Your task to perform on an android device: set the timer Image 0: 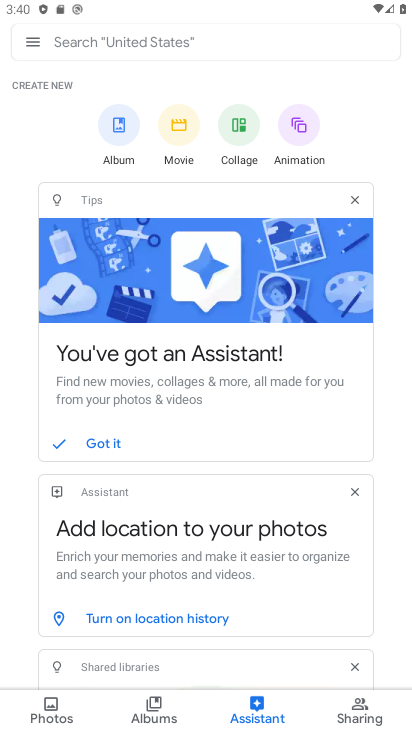
Step 0: press home button
Your task to perform on an android device: set the timer Image 1: 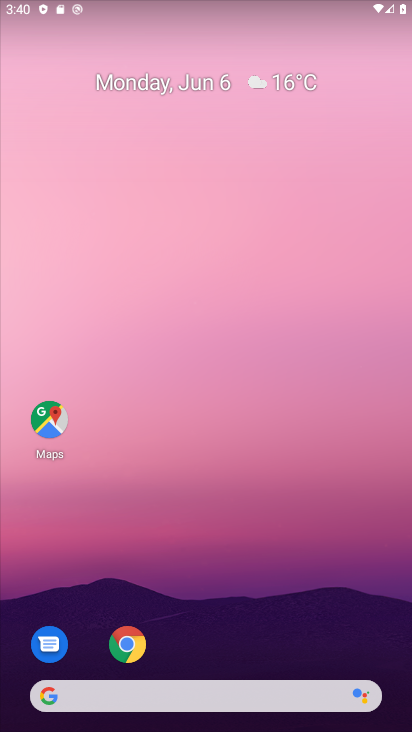
Step 1: drag from (140, 728) to (76, 17)
Your task to perform on an android device: set the timer Image 2: 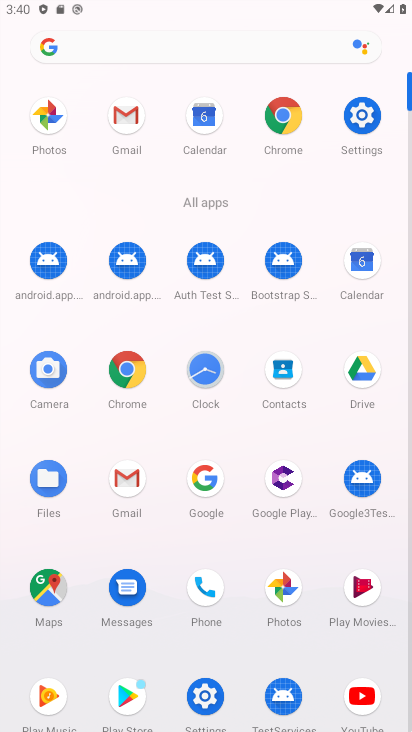
Step 2: click (200, 374)
Your task to perform on an android device: set the timer Image 3: 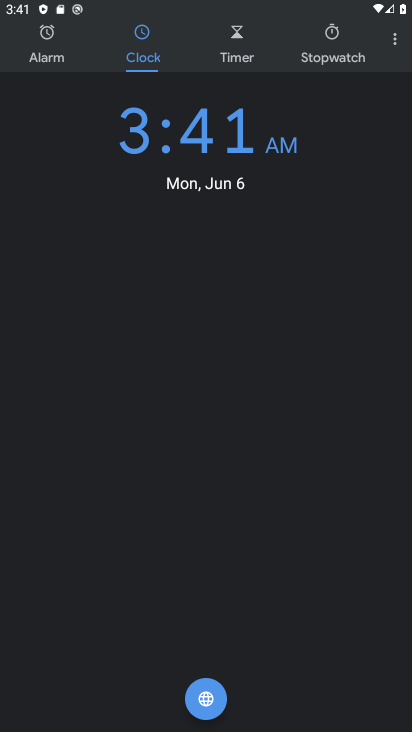
Step 3: click (247, 48)
Your task to perform on an android device: set the timer Image 4: 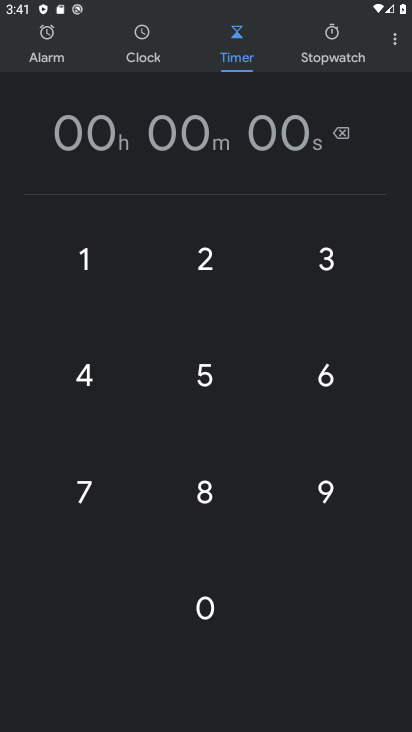
Step 4: click (205, 480)
Your task to perform on an android device: set the timer Image 5: 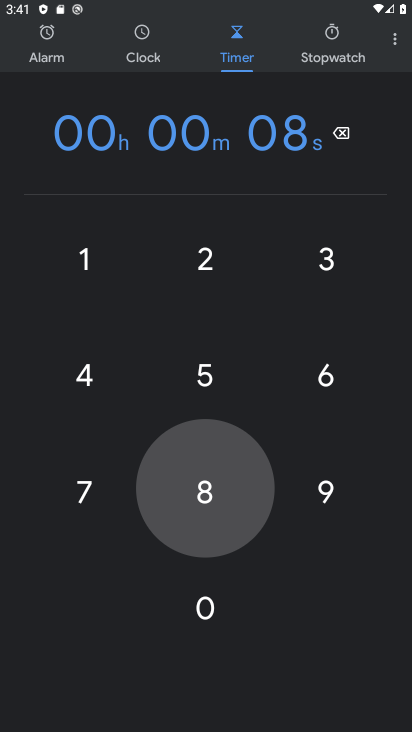
Step 5: click (214, 587)
Your task to perform on an android device: set the timer Image 6: 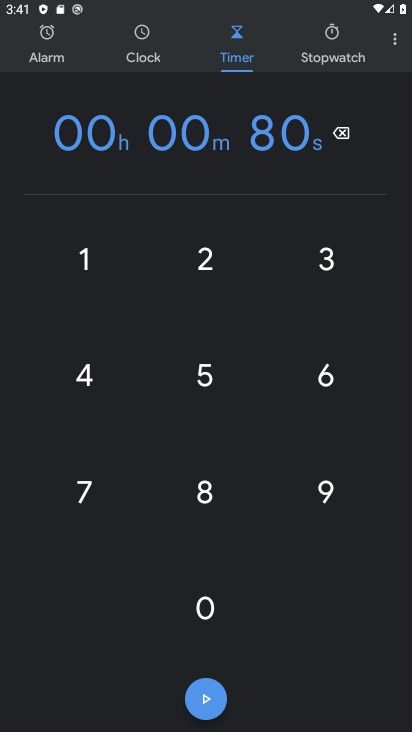
Step 6: click (207, 704)
Your task to perform on an android device: set the timer Image 7: 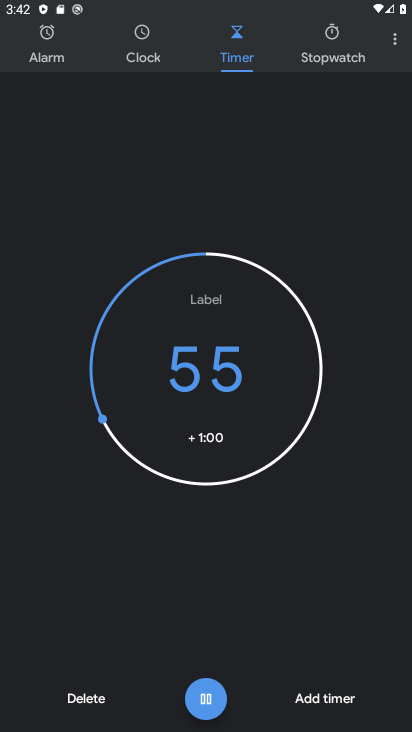
Step 7: click (206, 711)
Your task to perform on an android device: set the timer Image 8: 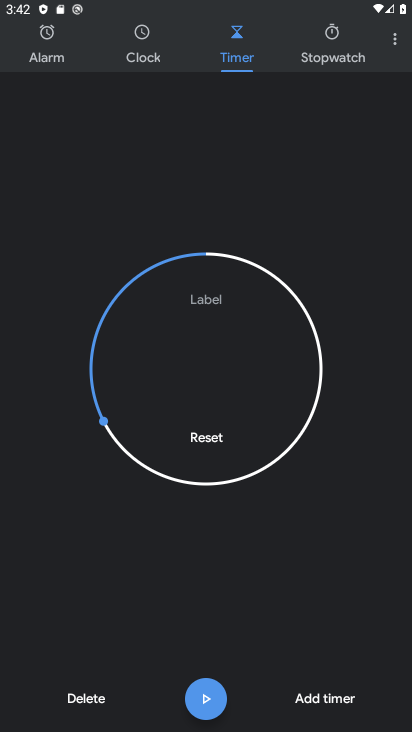
Step 8: task complete